Your task to perform on an android device: toggle javascript in the chrome app Image 0: 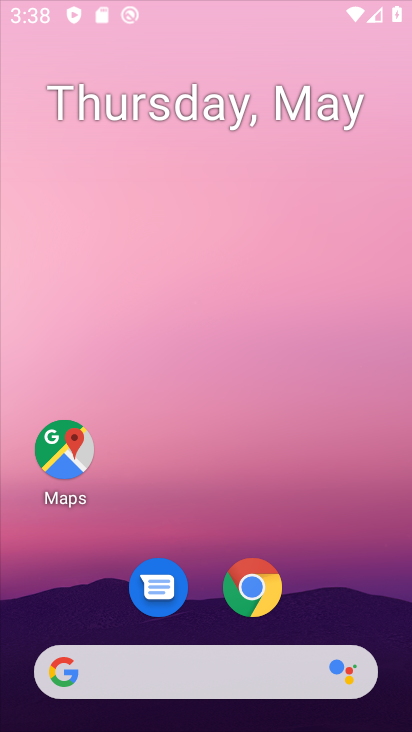
Step 0: click (238, 97)
Your task to perform on an android device: toggle javascript in the chrome app Image 1: 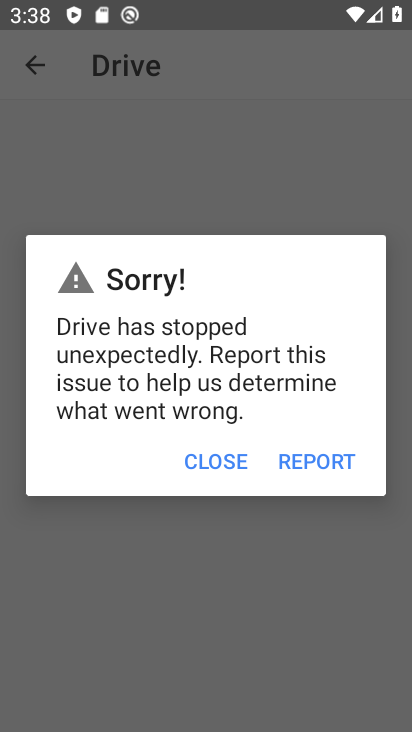
Step 1: press back button
Your task to perform on an android device: toggle javascript in the chrome app Image 2: 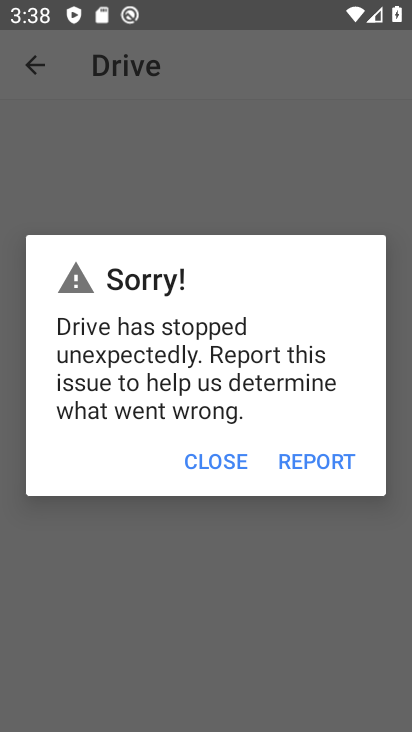
Step 2: press back button
Your task to perform on an android device: toggle javascript in the chrome app Image 3: 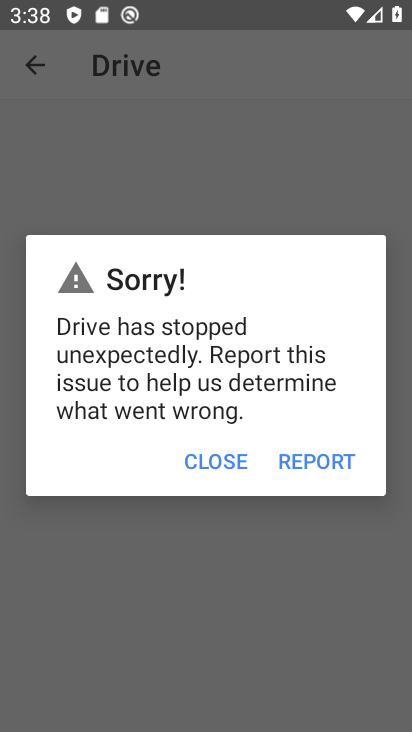
Step 3: press home button
Your task to perform on an android device: toggle javascript in the chrome app Image 4: 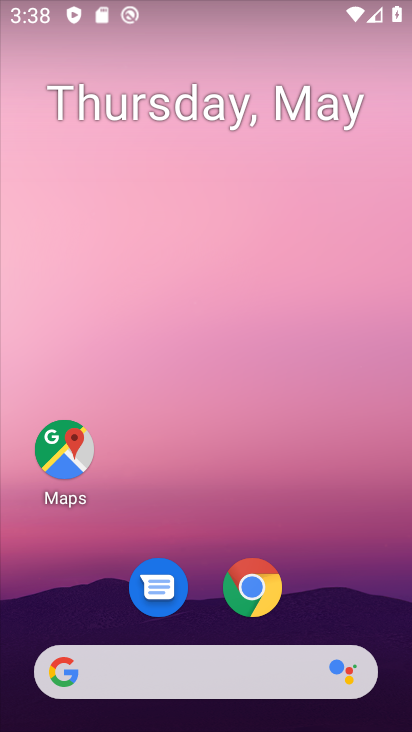
Step 4: drag from (311, 566) to (217, 24)
Your task to perform on an android device: toggle javascript in the chrome app Image 5: 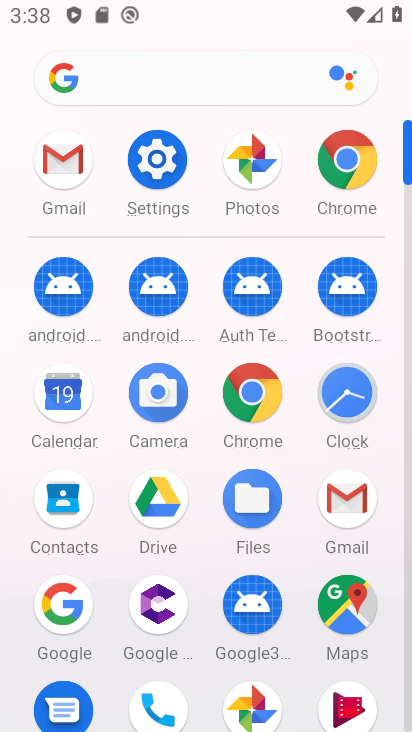
Step 5: drag from (12, 543) to (23, 190)
Your task to perform on an android device: toggle javascript in the chrome app Image 6: 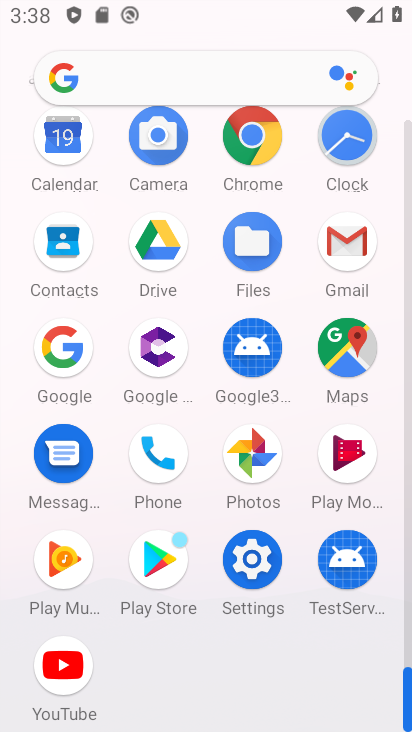
Step 6: click (250, 138)
Your task to perform on an android device: toggle javascript in the chrome app Image 7: 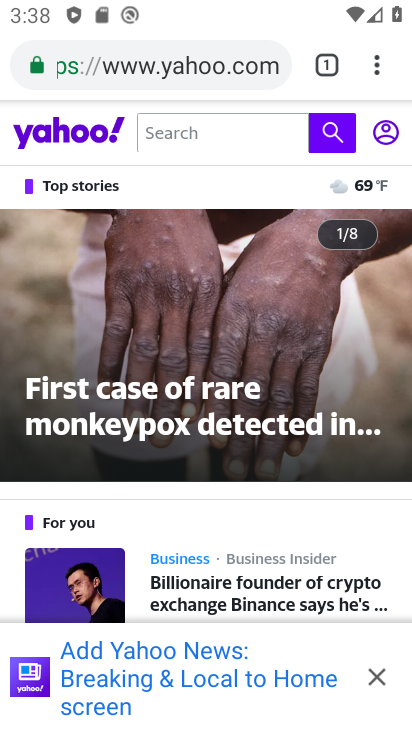
Step 7: drag from (378, 71) to (161, 627)
Your task to perform on an android device: toggle javascript in the chrome app Image 8: 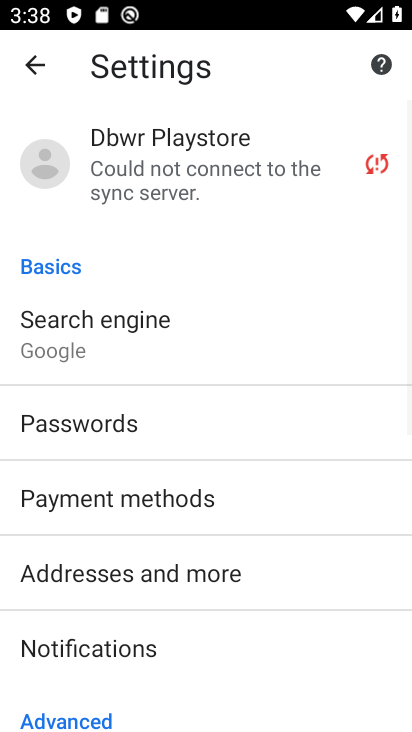
Step 8: drag from (228, 588) to (263, 149)
Your task to perform on an android device: toggle javascript in the chrome app Image 9: 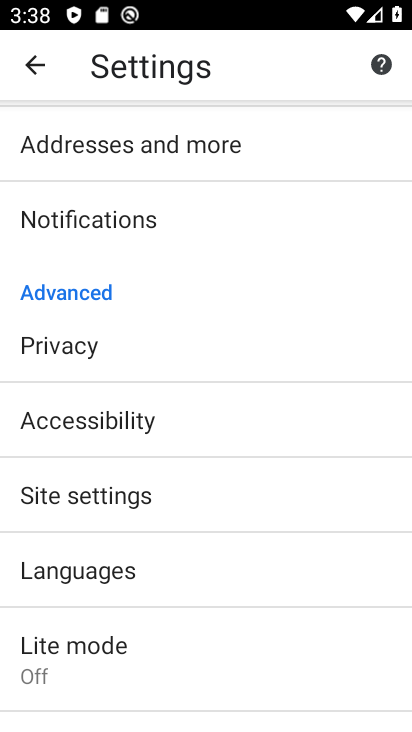
Step 9: drag from (144, 584) to (151, 269)
Your task to perform on an android device: toggle javascript in the chrome app Image 10: 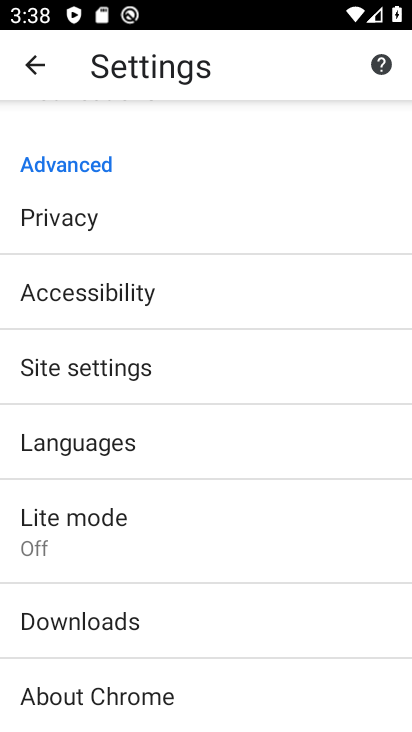
Step 10: click (163, 375)
Your task to perform on an android device: toggle javascript in the chrome app Image 11: 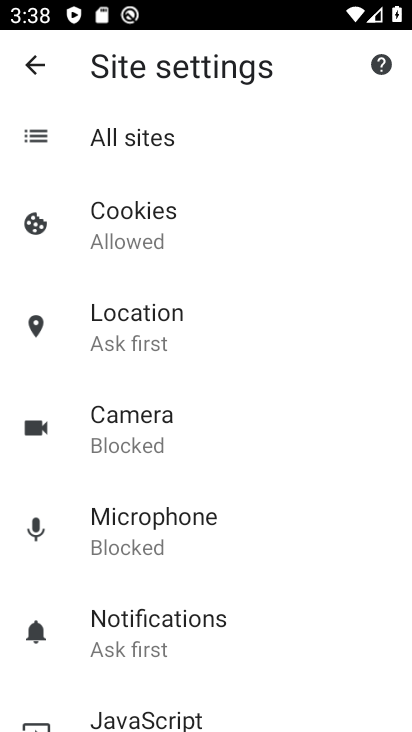
Step 11: drag from (235, 645) to (223, 262)
Your task to perform on an android device: toggle javascript in the chrome app Image 12: 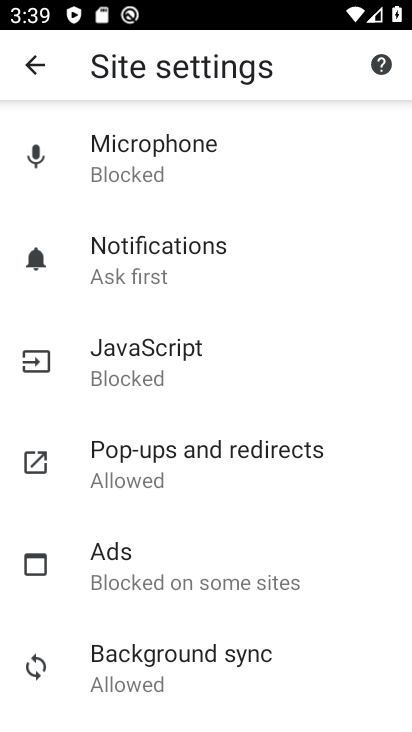
Step 12: click (160, 357)
Your task to perform on an android device: toggle javascript in the chrome app Image 13: 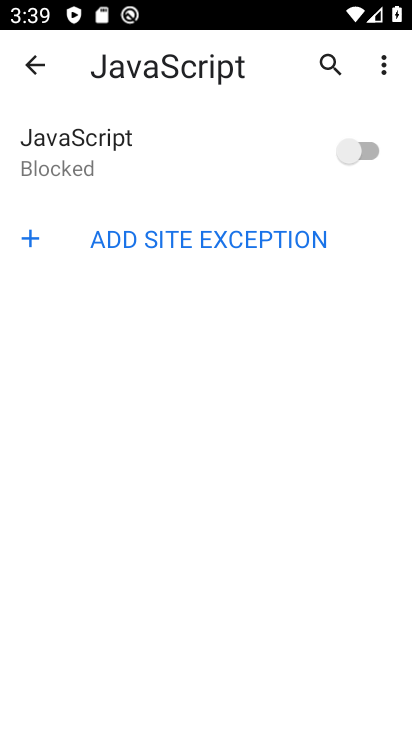
Step 13: click (345, 157)
Your task to perform on an android device: toggle javascript in the chrome app Image 14: 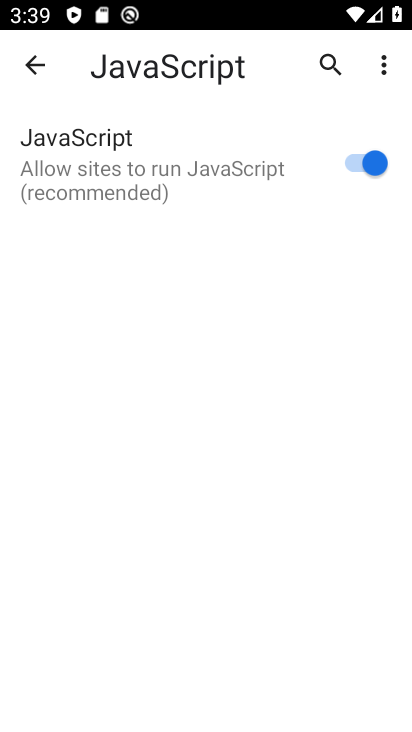
Step 14: task complete